Your task to perform on an android device: Open my contact list Image 0: 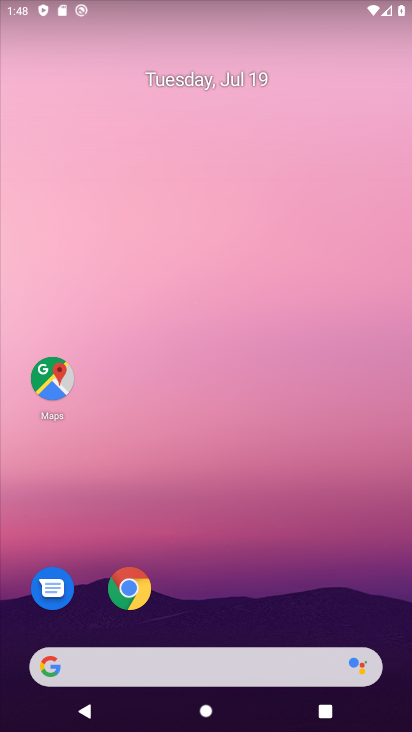
Step 0: click (218, 108)
Your task to perform on an android device: Open my contact list Image 1: 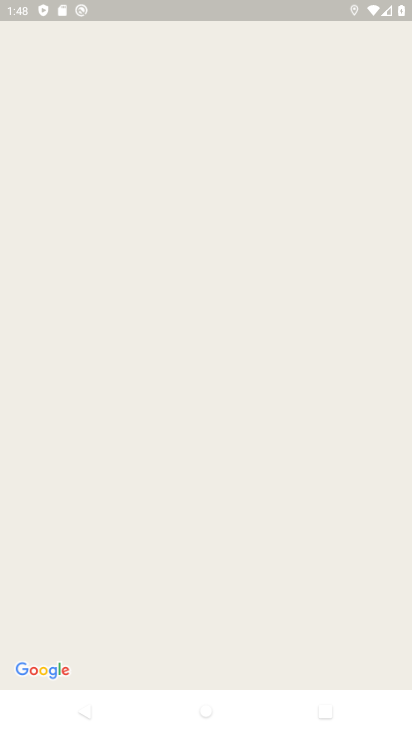
Step 1: press home button
Your task to perform on an android device: Open my contact list Image 2: 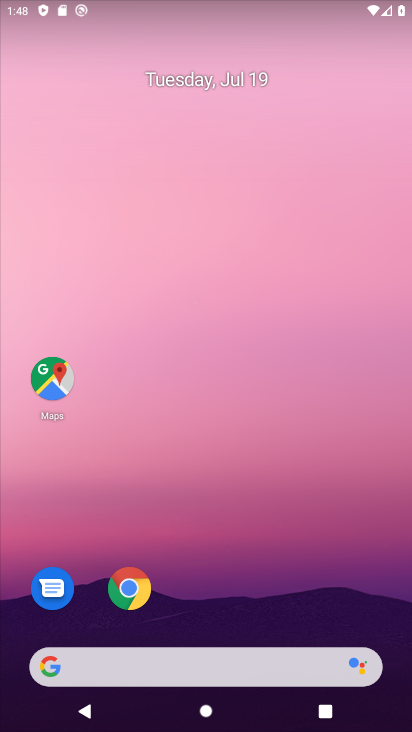
Step 2: drag from (243, 570) to (178, 1)
Your task to perform on an android device: Open my contact list Image 3: 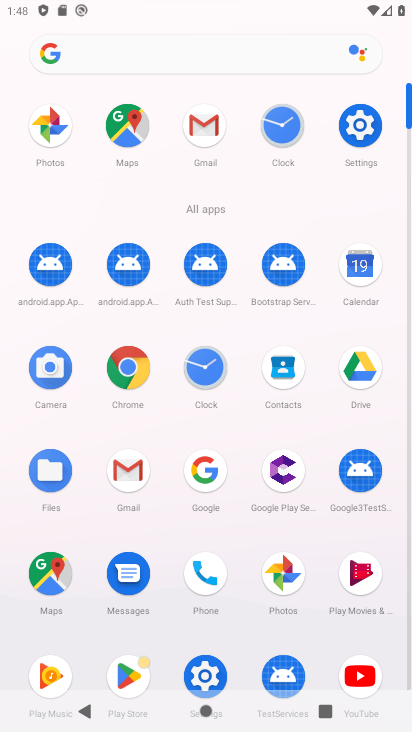
Step 3: click (284, 365)
Your task to perform on an android device: Open my contact list Image 4: 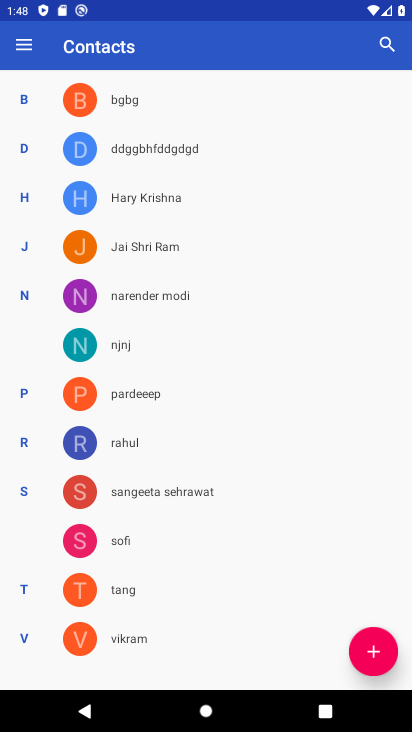
Step 4: task complete